Your task to perform on an android device: Open Android settings Image 0: 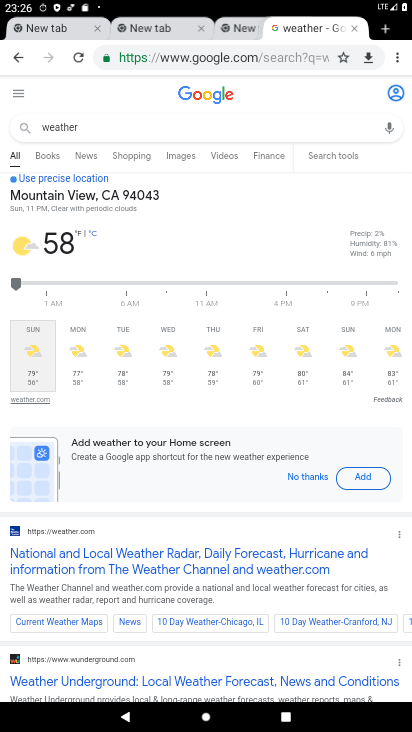
Step 0: drag from (235, 676) to (230, 222)
Your task to perform on an android device: Open Android settings Image 1: 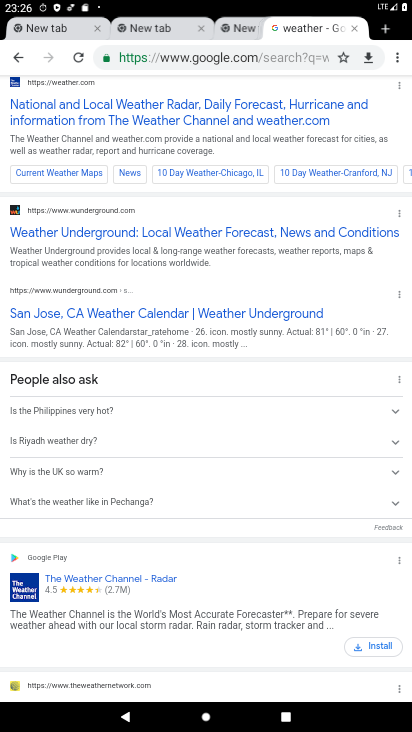
Step 1: press back button
Your task to perform on an android device: Open Android settings Image 2: 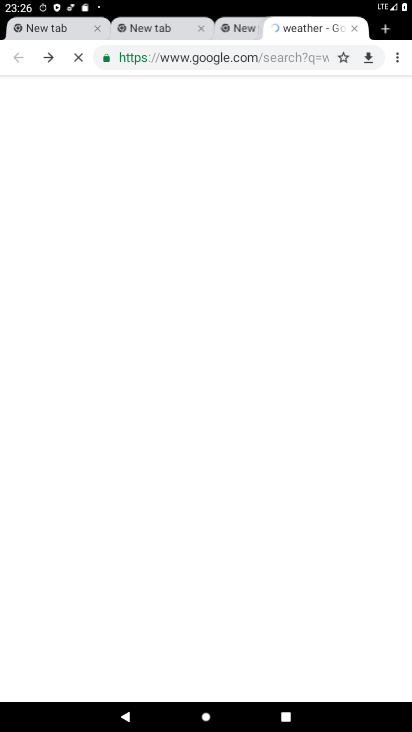
Step 2: press back button
Your task to perform on an android device: Open Android settings Image 3: 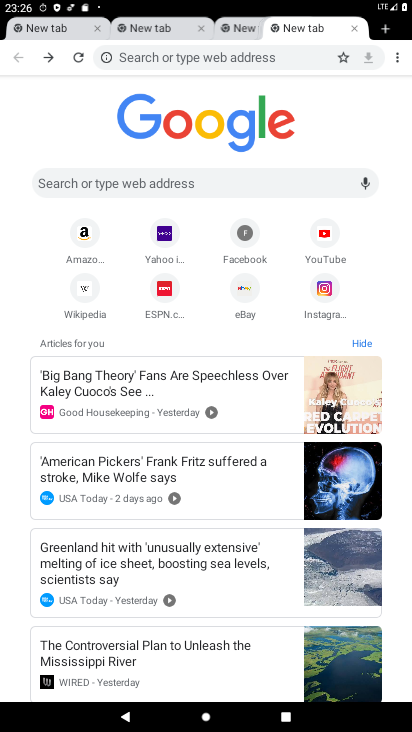
Step 3: press home button
Your task to perform on an android device: Open Android settings Image 4: 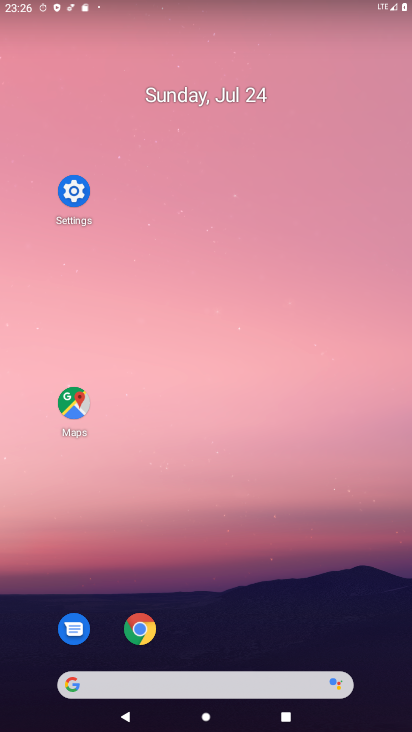
Step 4: drag from (215, 607) to (182, 286)
Your task to perform on an android device: Open Android settings Image 5: 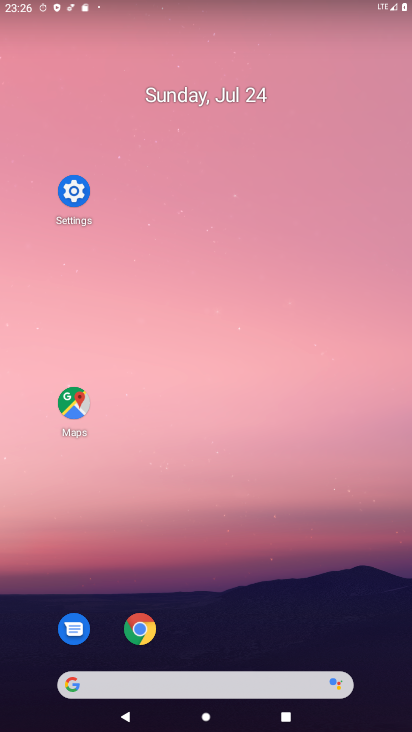
Step 5: drag from (231, 505) to (207, 155)
Your task to perform on an android device: Open Android settings Image 6: 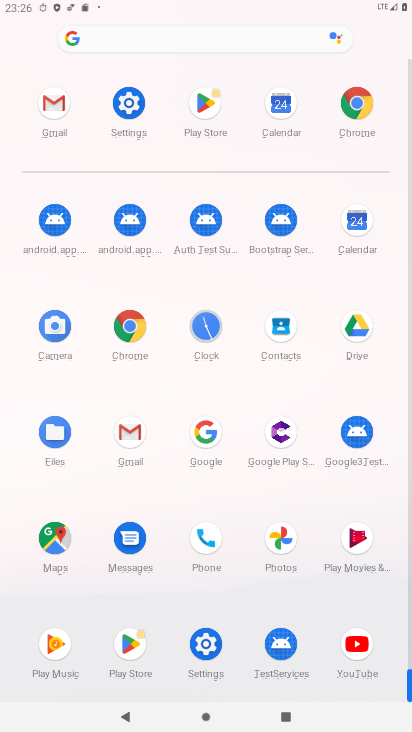
Step 6: click (206, 634)
Your task to perform on an android device: Open Android settings Image 7: 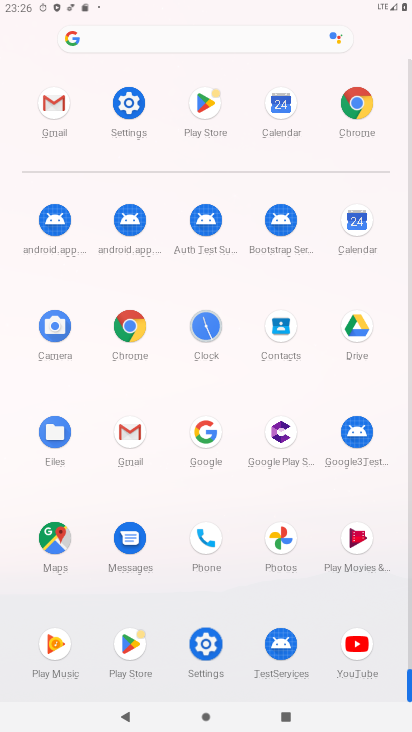
Step 7: click (206, 634)
Your task to perform on an android device: Open Android settings Image 8: 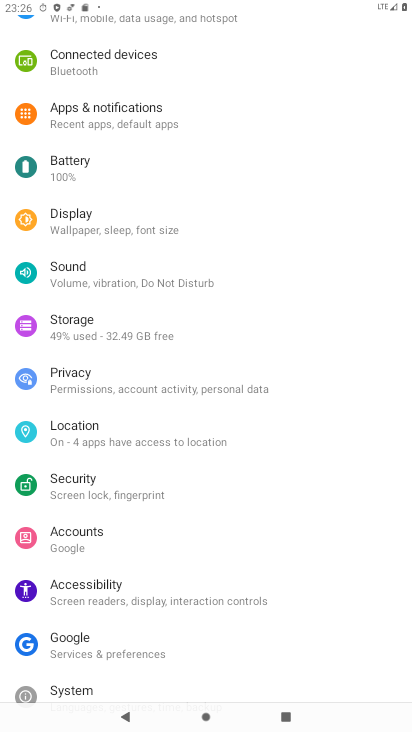
Step 8: drag from (137, 556) to (118, 283)
Your task to perform on an android device: Open Android settings Image 9: 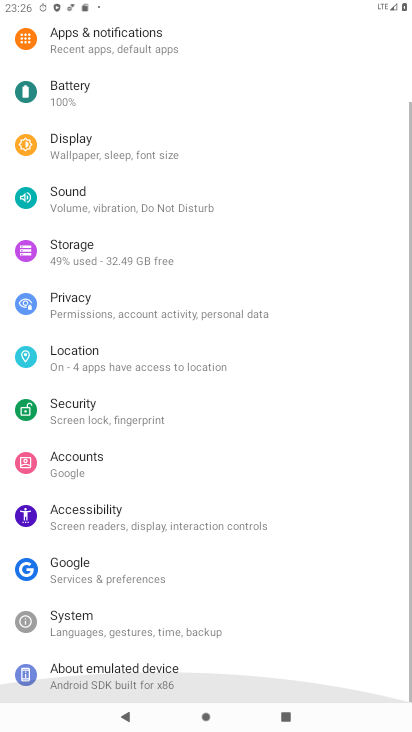
Step 9: drag from (129, 485) to (135, 246)
Your task to perform on an android device: Open Android settings Image 10: 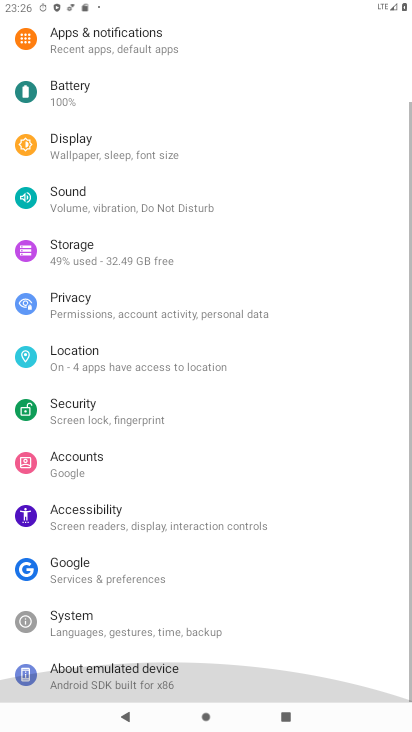
Step 10: drag from (145, 585) to (153, 314)
Your task to perform on an android device: Open Android settings Image 11: 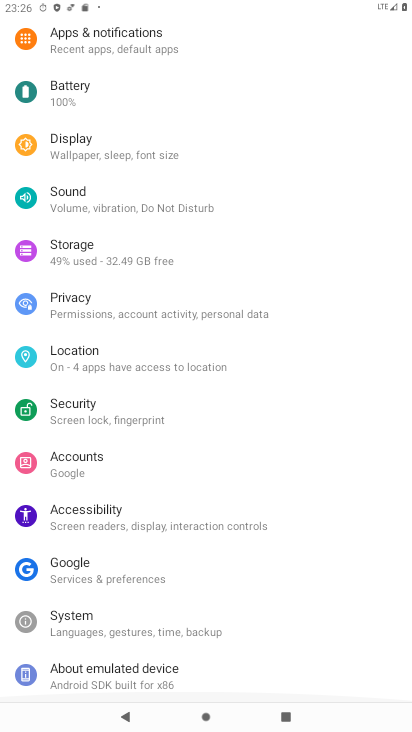
Step 11: click (113, 676)
Your task to perform on an android device: Open Android settings Image 12: 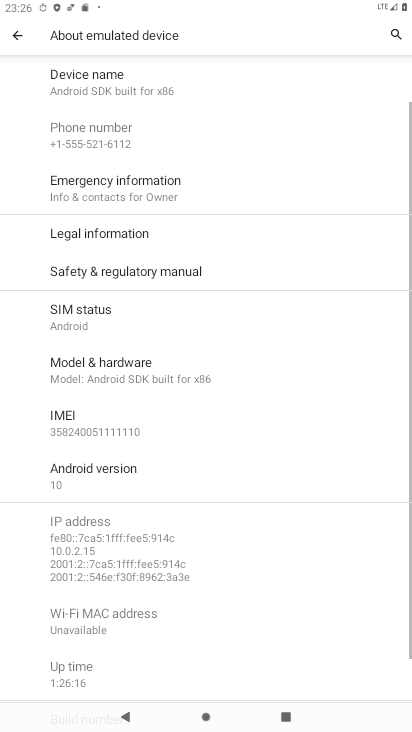
Step 12: task complete